Your task to perform on an android device: Show me recent news Image 0: 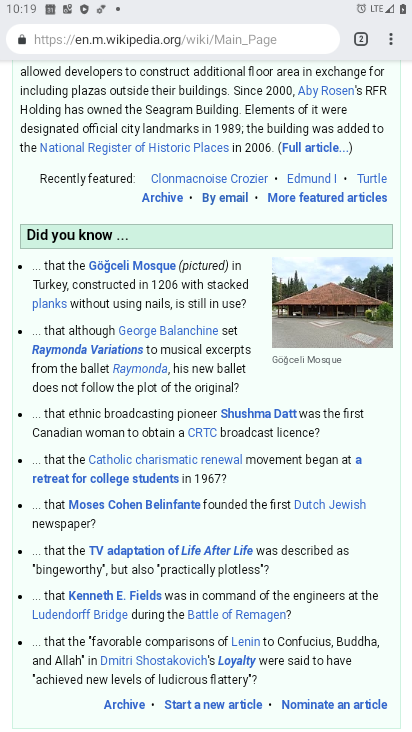
Step 0: press home button
Your task to perform on an android device: Show me recent news Image 1: 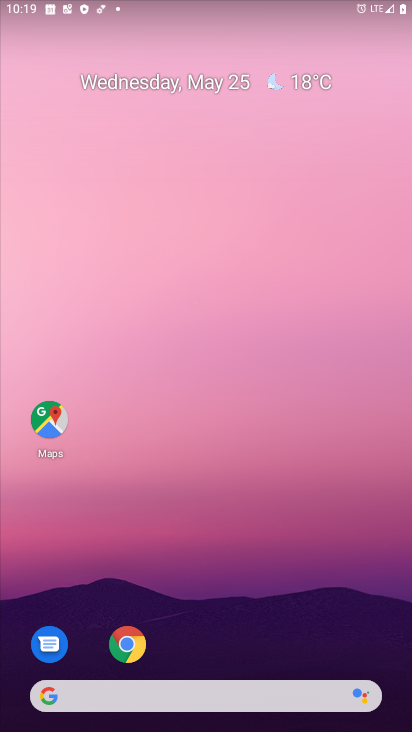
Step 1: task complete